Your task to perform on an android device: Turn off the flashlight Image 0: 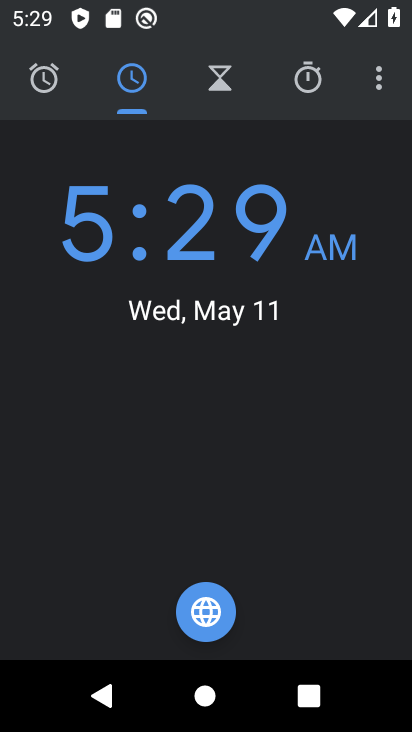
Step 0: press home button
Your task to perform on an android device: Turn off the flashlight Image 1: 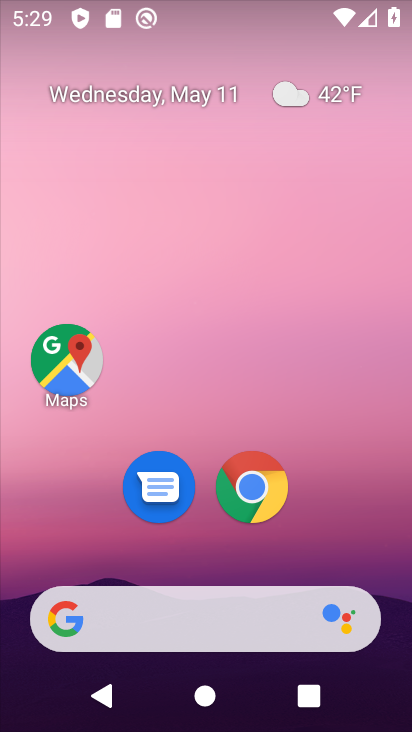
Step 1: drag from (236, 491) to (321, 7)
Your task to perform on an android device: Turn off the flashlight Image 2: 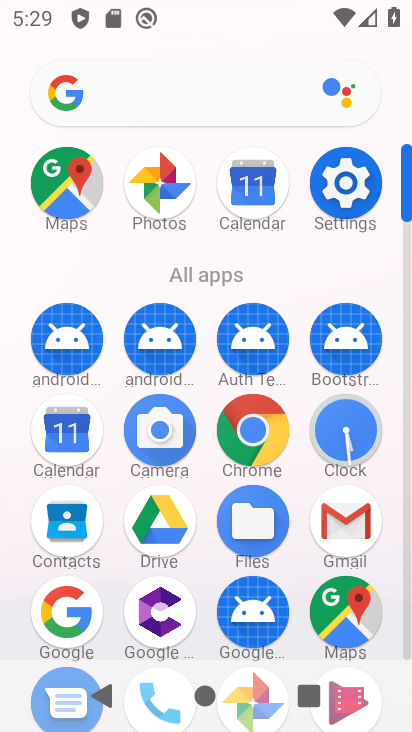
Step 2: click (333, 280)
Your task to perform on an android device: Turn off the flashlight Image 3: 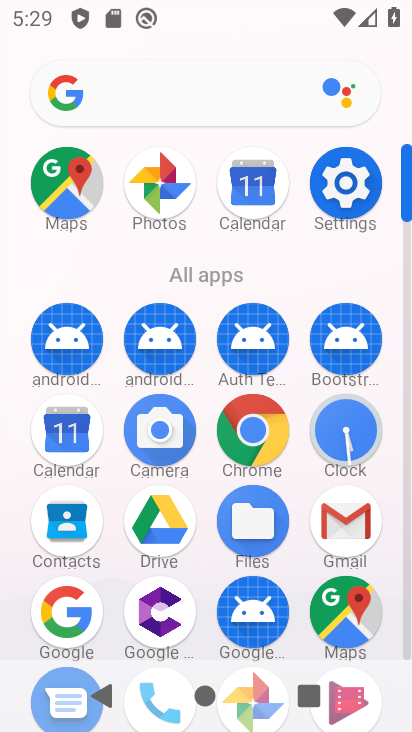
Step 3: click (360, 206)
Your task to perform on an android device: Turn off the flashlight Image 4: 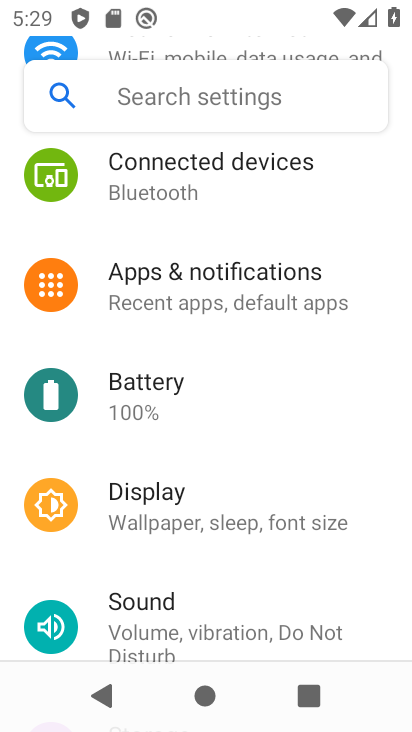
Step 4: click (193, 91)
Your task to perform on an android device: Turn off the flashlight Image 5: 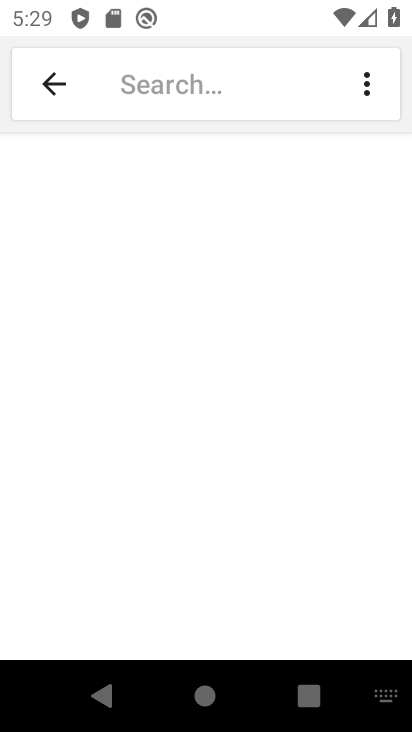
Step 5: type "flashlight"
Your task to perform on an android device: Turn off the flashlight Image 6: 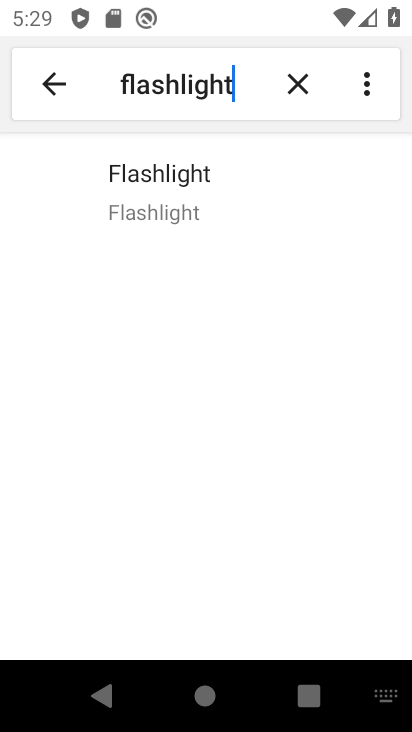
Step 6: click (144, 214)
Your task to perform on an android device: Turn off the flashlight Image 7: 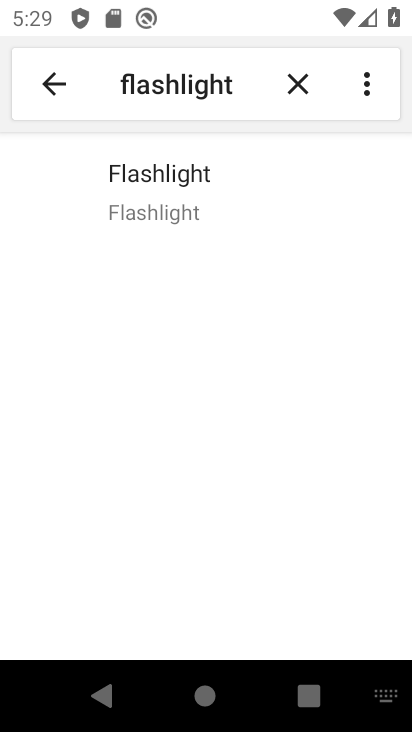
Step 7: click (144, 214)
Your task to perform on an android device: Turn off the flashlight Image 8: 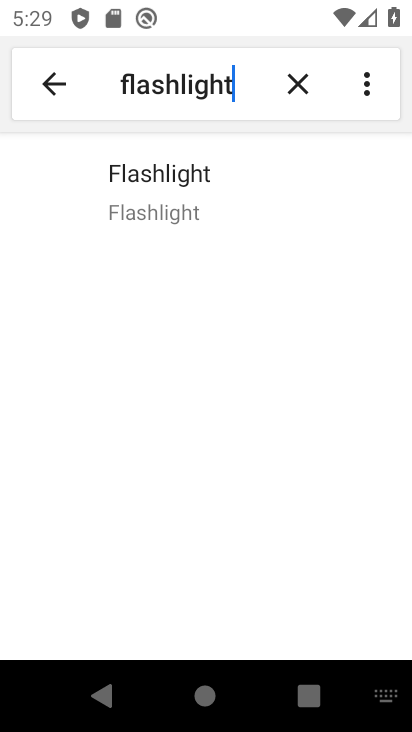
Step 8: task complete